Your task to perform on an android device: Go to wifi settings Image 0: 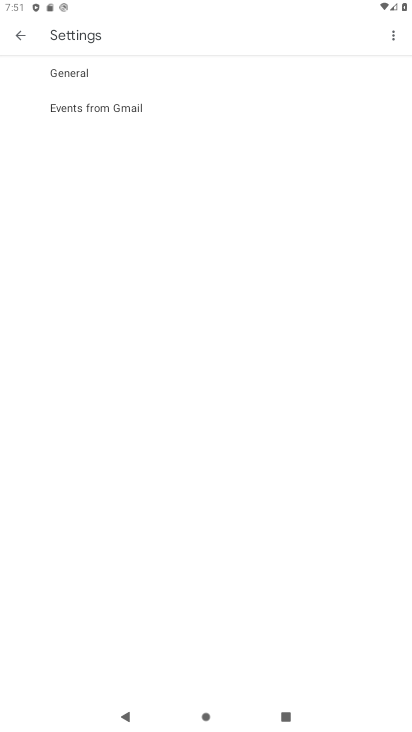
Step 0: press home button
Your task to perform on an android device: Go to wifi settings Image 1: 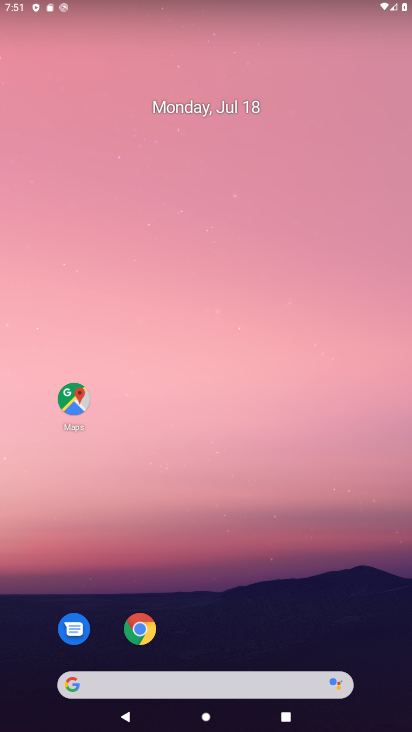
Step 1: drag from (213, 484) to (141, 144)
Your task to perform on an android device: Go to wifi settings Image 2: 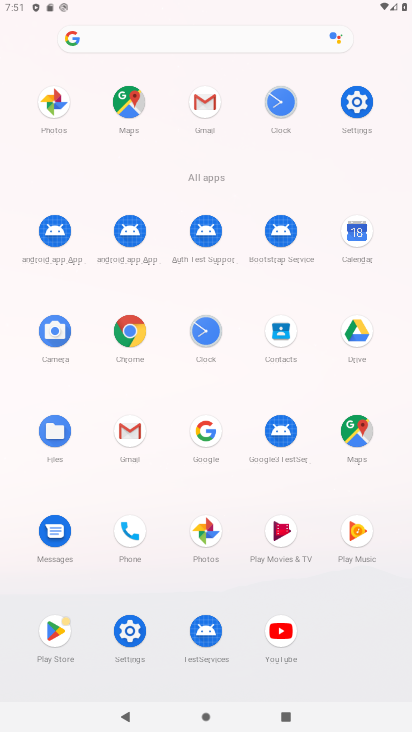
Step 2: click (356, 109)
Your task to perform on an android device: Go to wifi settings Image 3: 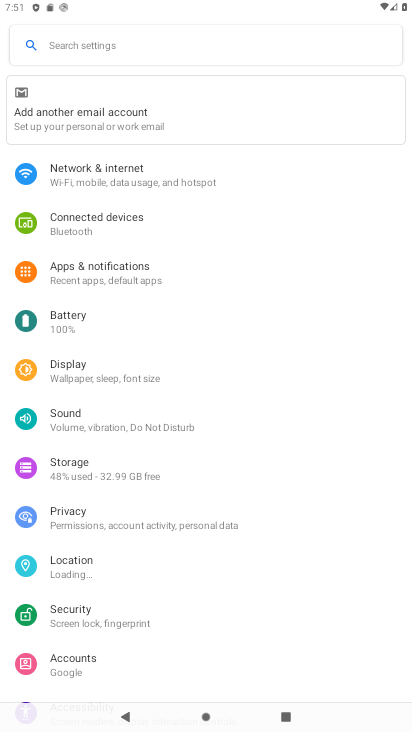
Step 3: click (181, 172)
Your task to perform on an android device: Go to wifi settings Image 4: 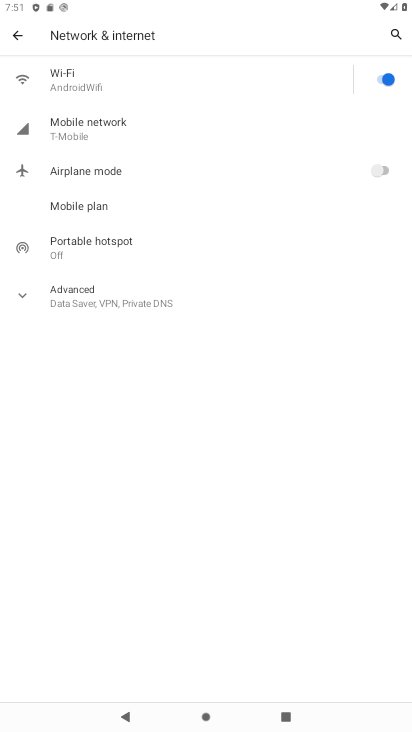
Step 4: click (108, 76)
Your task to perform on an android device: Go to wifi settings Image 5: 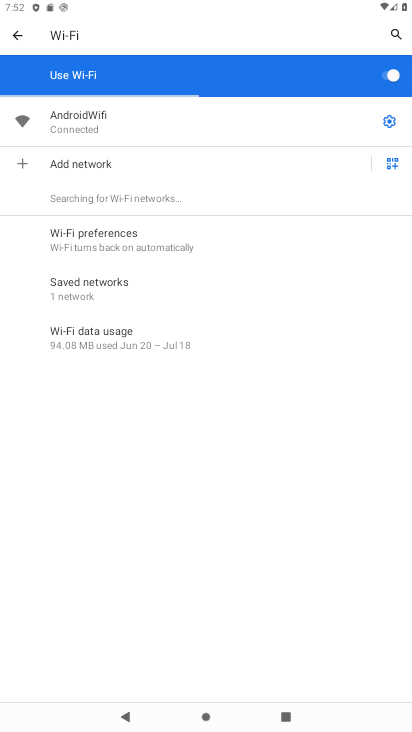
Step 5: task complete